Your task to perform on an android device: What is the recent news? Image 0: 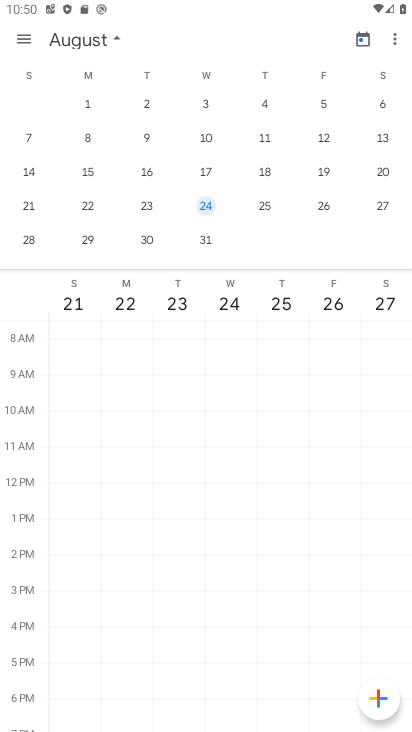
Step 0: press home button
Your task to perform on an android device: What is the recent news? Image 1: 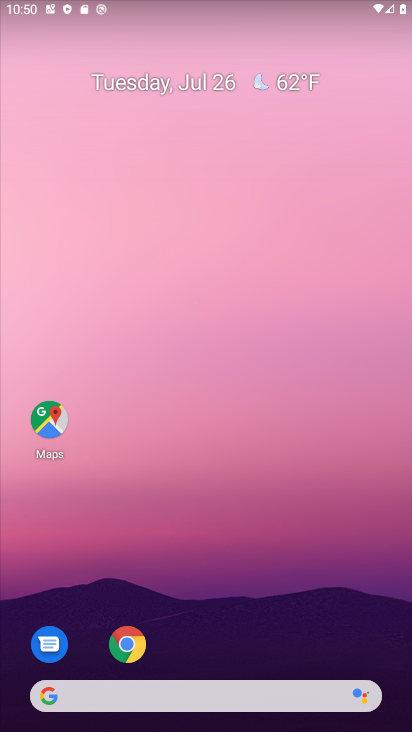
Step 1: click (213, 705)
Your task to perform on an android device: What is the recent news? Image 2: 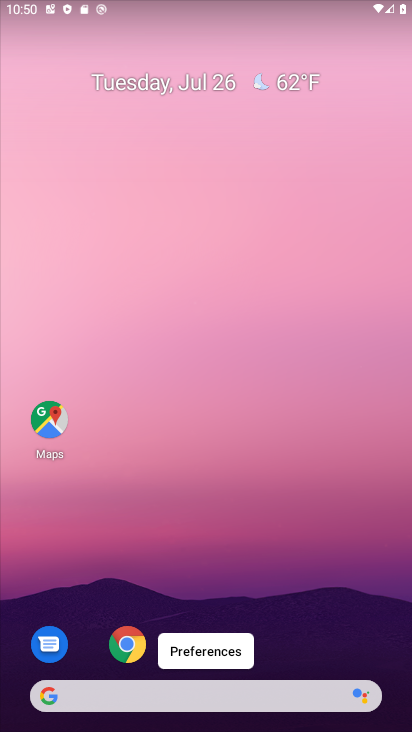
Step 2: click (210, 698)
Your task to perform on an android device: What is the recent news? Image 3: 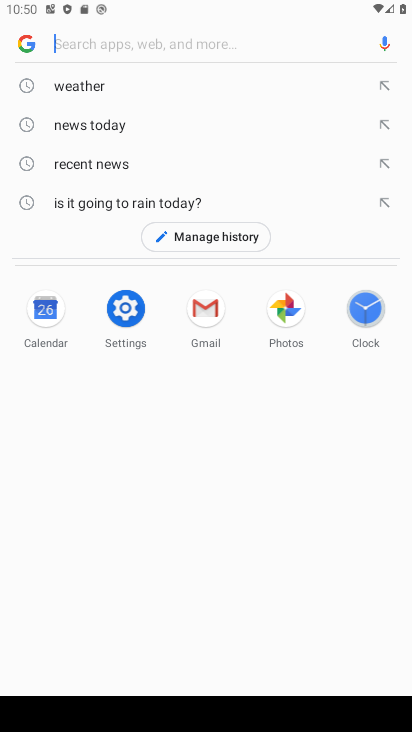
Step 3: click (121, 169)
Your task to perform on an android device: What is the recent news? Image 4: 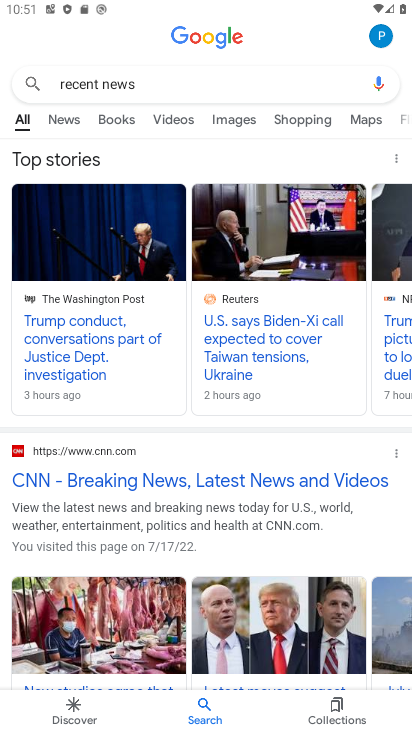
Step 4: task complete